Your task to perform on an android device: Go to CNN.com Image 0: 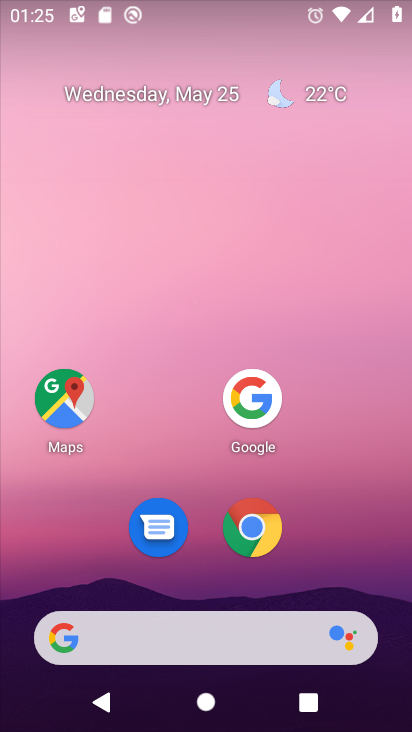
Step 0: press home button
Your task to perform on an android device: Go to CNN.com Image 1: 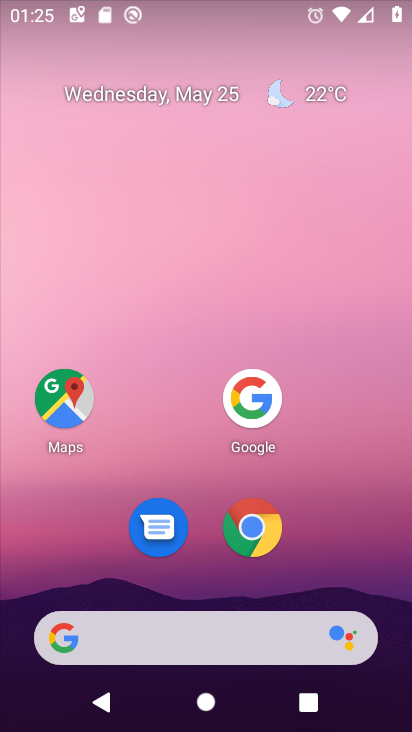
Step 1: click (252, 529)
Your task to perform on an android device: Go to CNN.com Image 2: 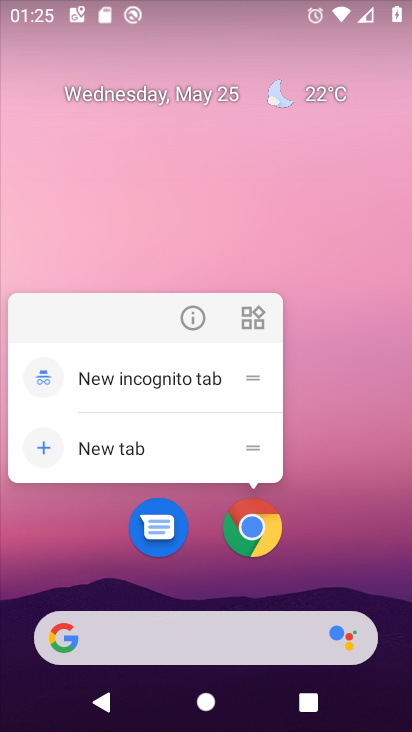
Step 2: click (259, 539)
Your task to perform on an android device: Go to CNN.com Image 3: 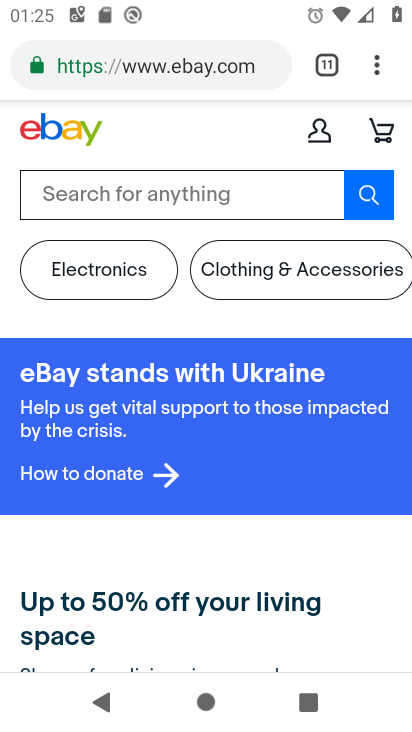
Step 3: drag from (375, 67) to (256, 129)
Your task to perform on an android device: Go to CNN.com Image 4: 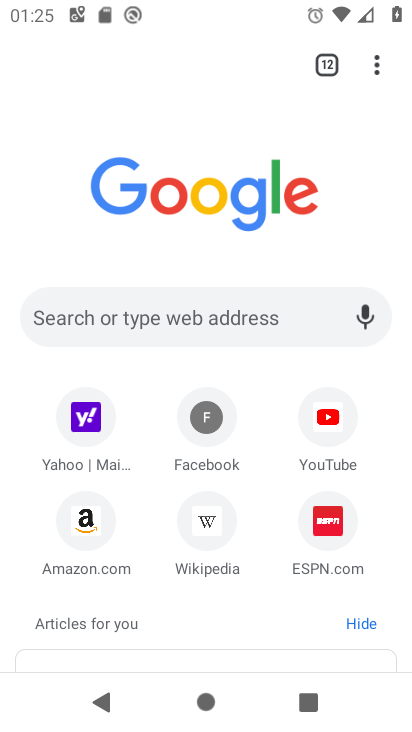
Step 4: click (150, 302)
Your task to perform on an android device: Go to CNN.com Image 5: 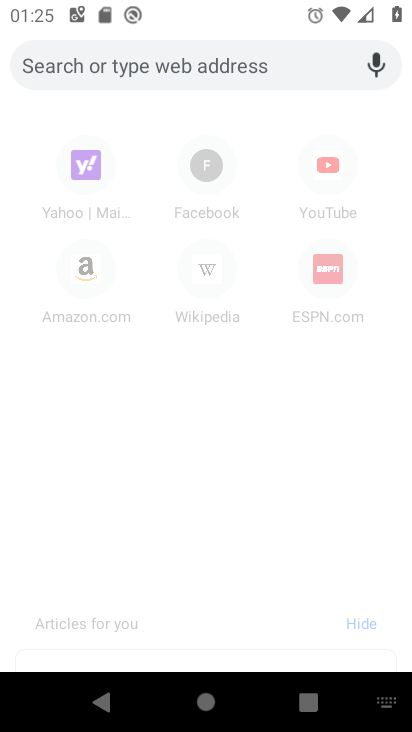
Step 5: type "cnn.com"
Your task to perform on an android device: Go to CNN.com Image 6: 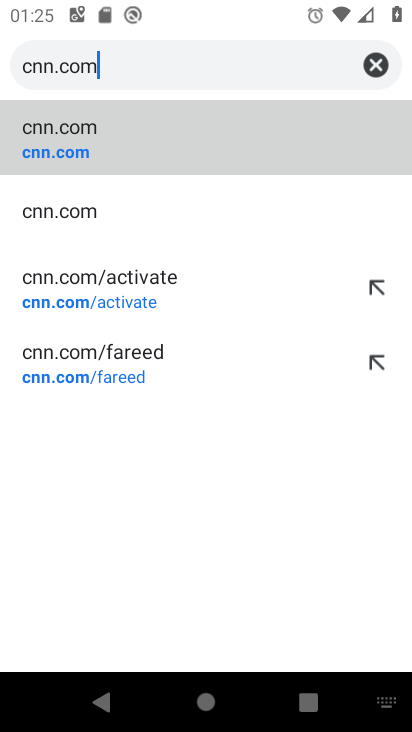
Step 6: click (95, 126)
Your task to perform on an android device: Go to CNN.com Image 7: 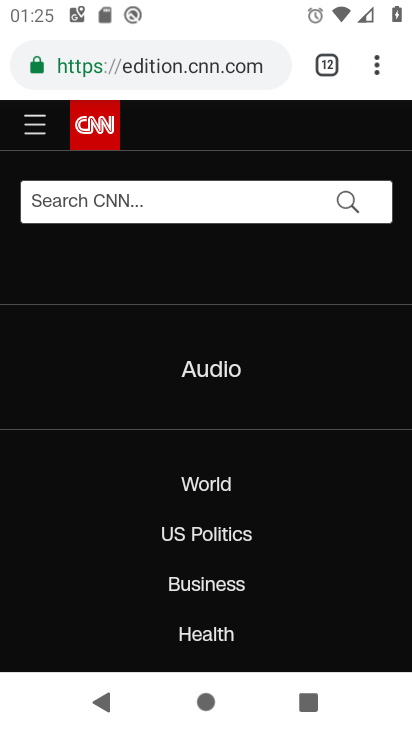
Step 7: task complete